Your task to perform on an android device: Open Google Maps and go to "Timeline" Image 0: 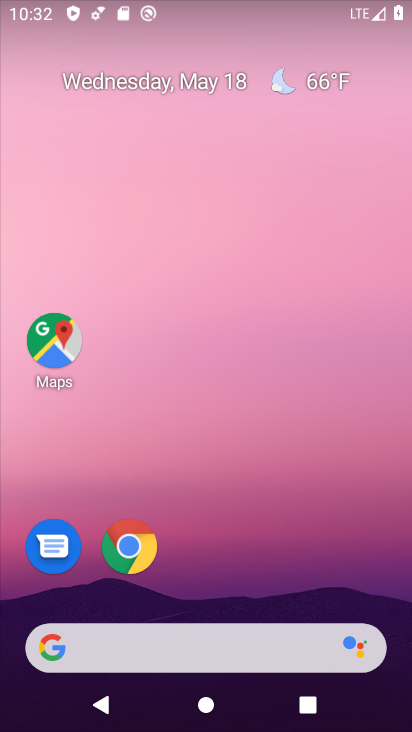
Step 0: drag from (240, 724) to (240, 151)
Your task to perform on an android device: Open Google Maps and go to "Timeline" Image 1: 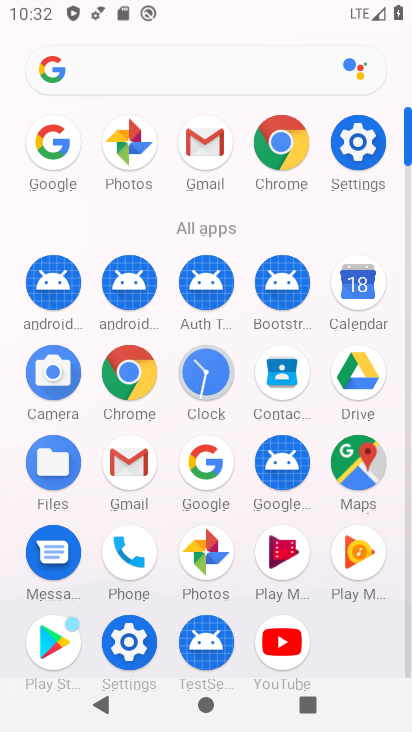
Step 1: click (348, 459)
Your task to perform on an android device: Open Google Maps and go to "Timeline" Image 2: 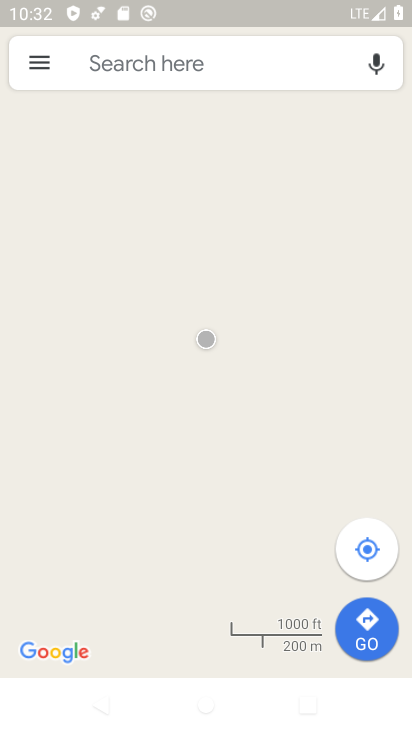
Step 2: click (37, 64)
Your task to perform on an android device: Open Google Maps and go to "Timeline" Image 3: 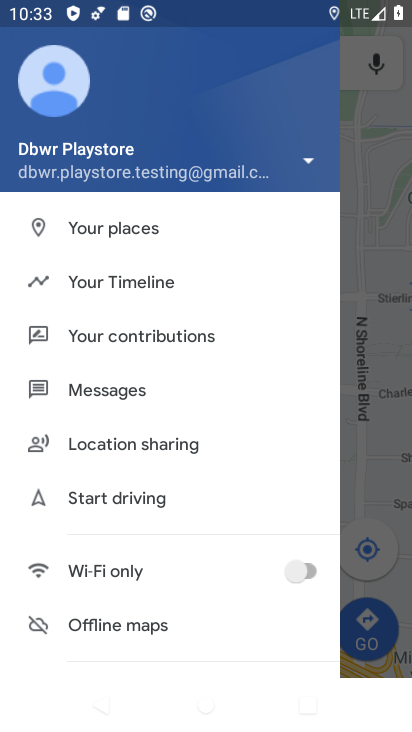
Step 3: click (121, 282)
Your task to perform on an android device: Open Google Maps and go to "Timeline" Image 4: 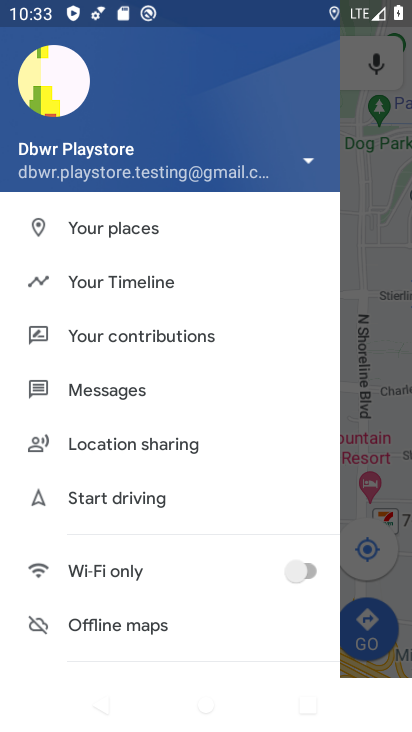
Step 4: click (149, 279)
Your task to perform on an android device: Open Google Maps and go to "Timeline" Image 5: 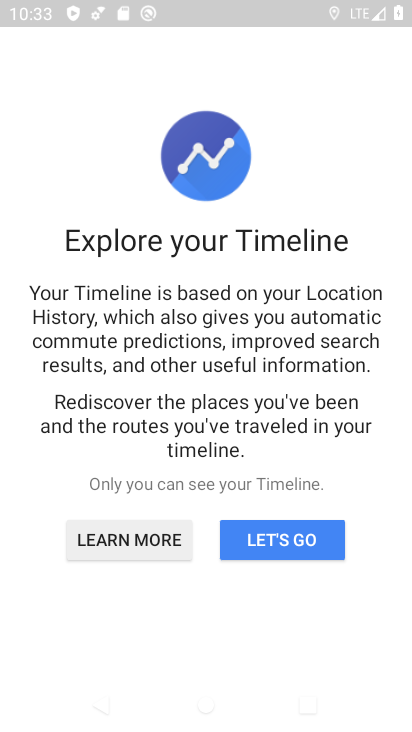
Step 5: click (294, 539)
Your task to perform on an android device: Open Google Maps and go to "Timeline" Image 6: 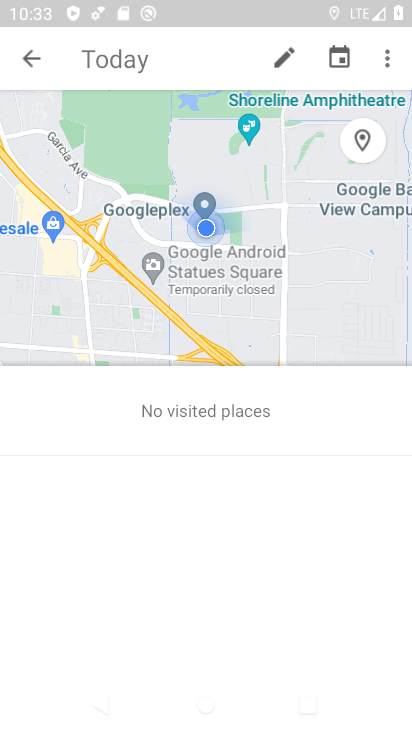
Step 6: task complete